Your task to perform on an android device: Go to settings Image 0: 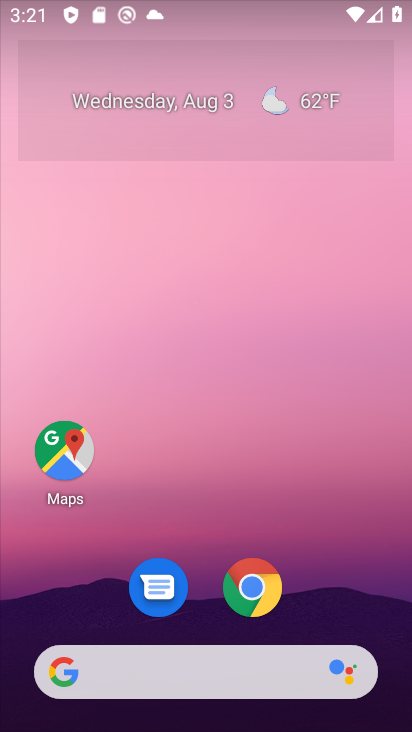
Step 0: drag from (40, 646) to (180, 53)
Your task to perform on an android device: Go to settings Image 1: 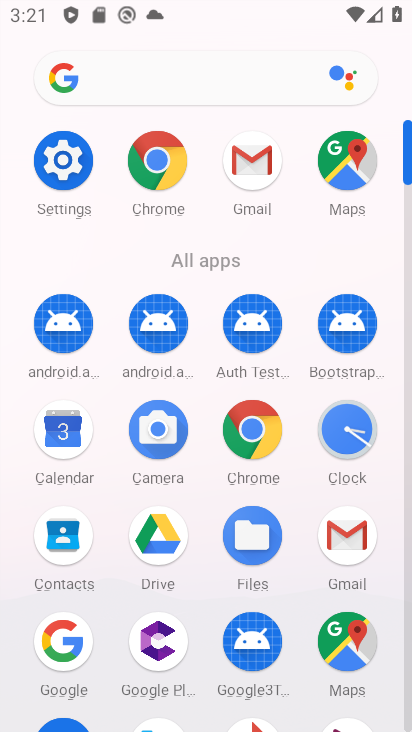
Step 1: drag from (116, 698) to (131, 368)
Your task to perform on an android device: Go to settings Image 2: 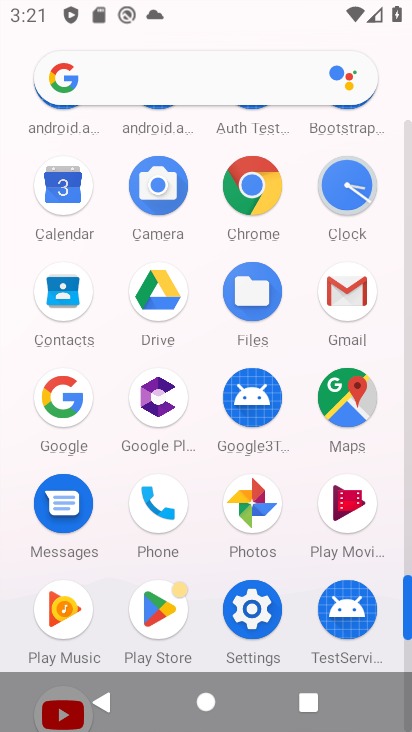
Step 2: drag from (136, 161) to (80, 504)
Your task to perform on an android device: Go to settings Image 3: 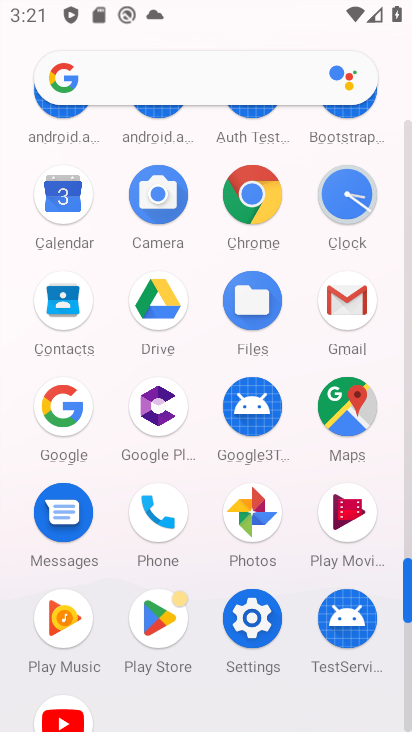
Step 3: drag from (152, 243) to (191, 475)
Your task to perform on an android device: Go to settings Image 4: 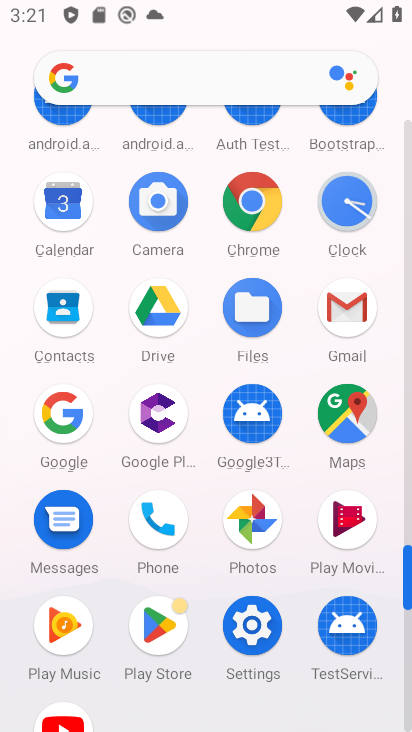
Step 4: drag from (123, 168) to (167, 539)
Your task to perform on an android device: Go to settings Image 5: 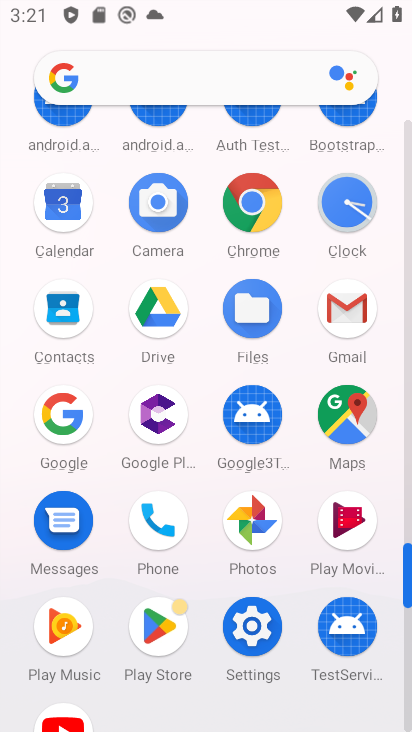
Step 5: drag from (63, 139) to (117, 524)
Your task to perform on an android device: Go to settings Image 6: 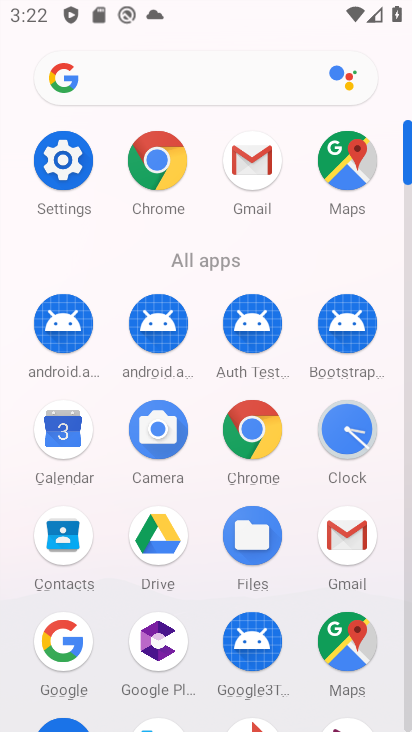
Step 6: click (56, 177)
Your task to perform on an android device: Go to settings Image 7: 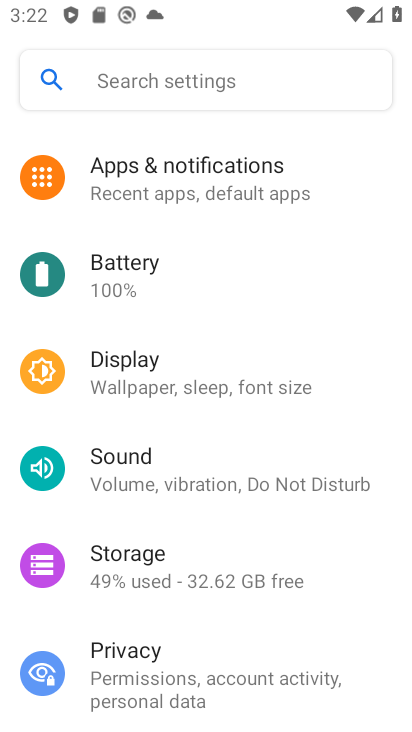
Step 7: task complete